Your task to perform on an android device: Go to Android settings Image 0: 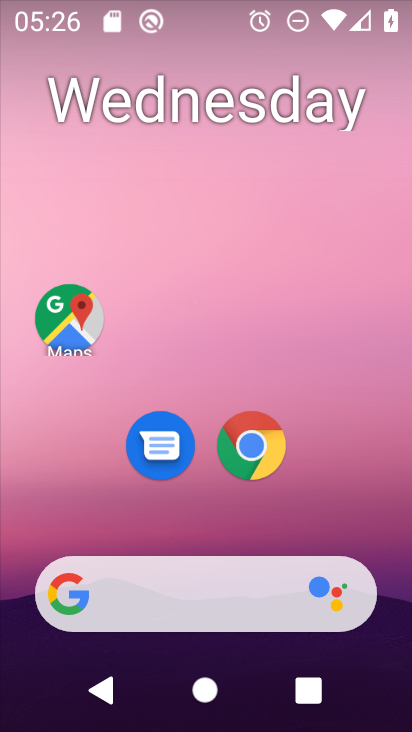
Step 0: drag from (184, 519) to (215, 93)
Your task to perform on an android device: Go to Android settings Image 1: 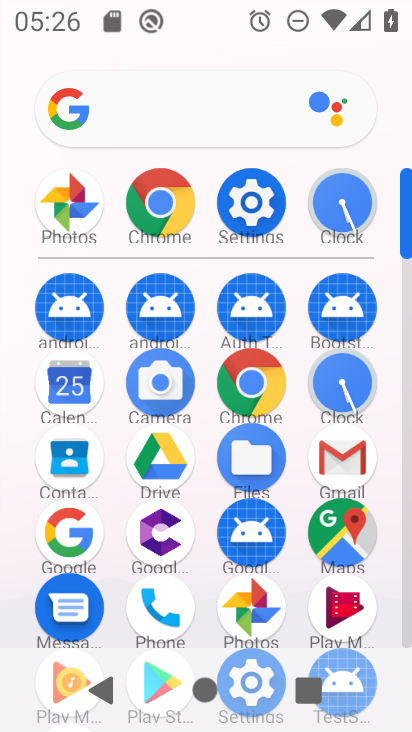
Step 1: click (253, 214)
Your task to perform on an android device: Go to Android settings Image 2: 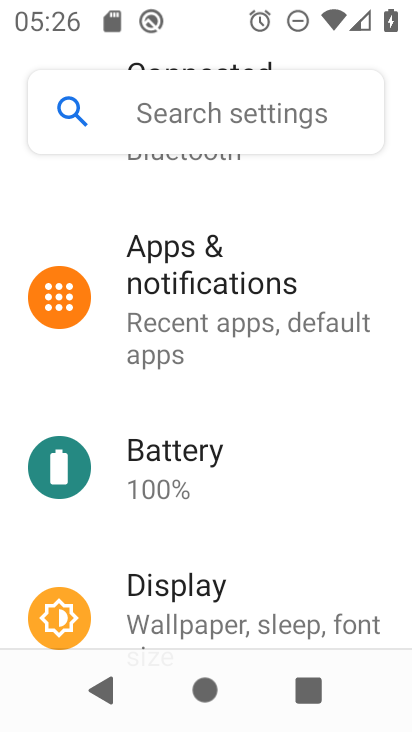
Step 2: task complete